Your task to perform on an android device: star an email in the gmail app Image 0: 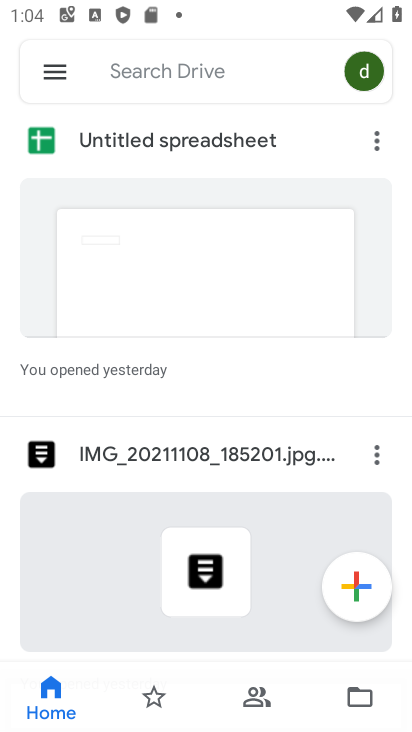
Step 0: press home button
Your task to perform on an android device: star an email in the gmail app Image 1: 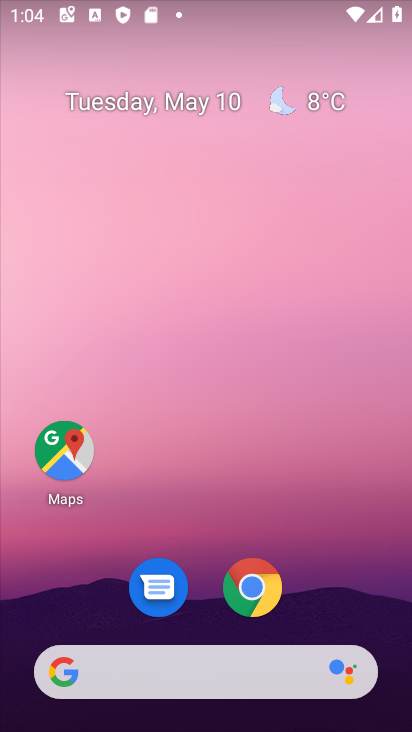
Step 1: drag from (389, 459) to (374, 293)
Your task to perform on an android device: star an email in the gmail app Image 2: 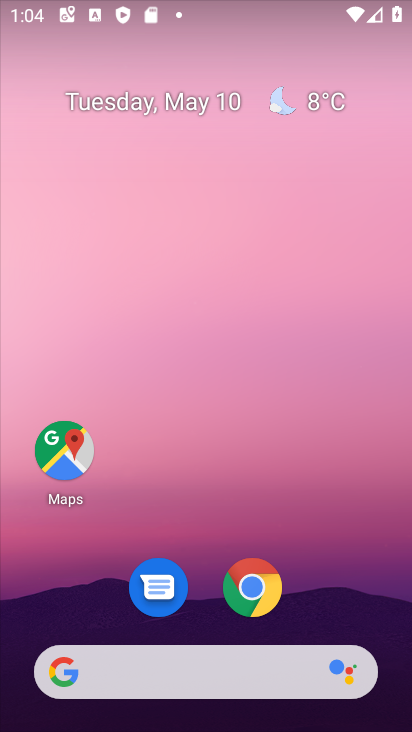
Step 2: drag from (391, 672) to (391, 242)
Your task to perform on an android device: star an email in the gmail app Image 3: 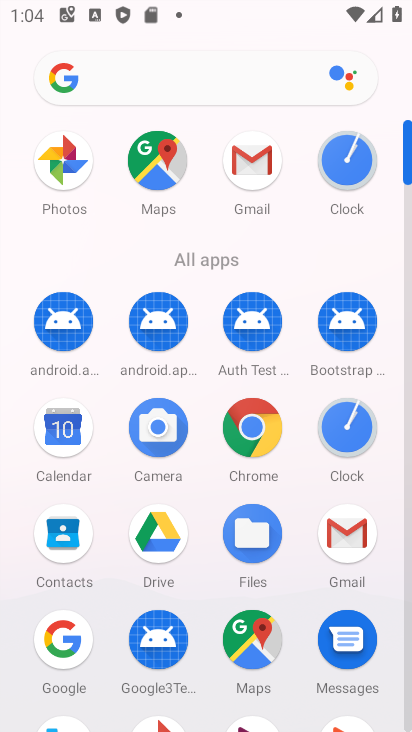
Step 3: click (353, 529)
Your task to perform on an android device: star an email in the gmail app Image 4: 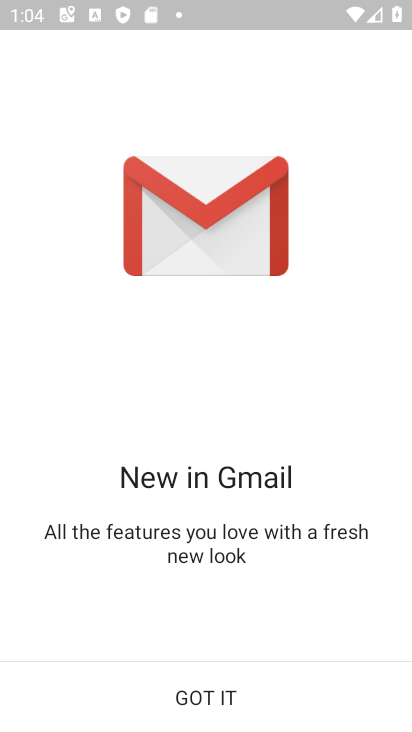
Step 4: click (198, 686)
Your task to perform on an android device: star an email in the gmail app Image 5: 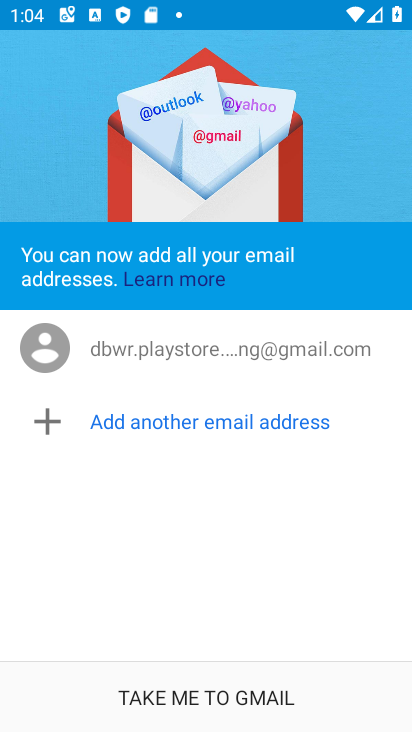
Step 5: click (202, 691)
Your task to perform on an android device: star an email in the gmail app Image 6: 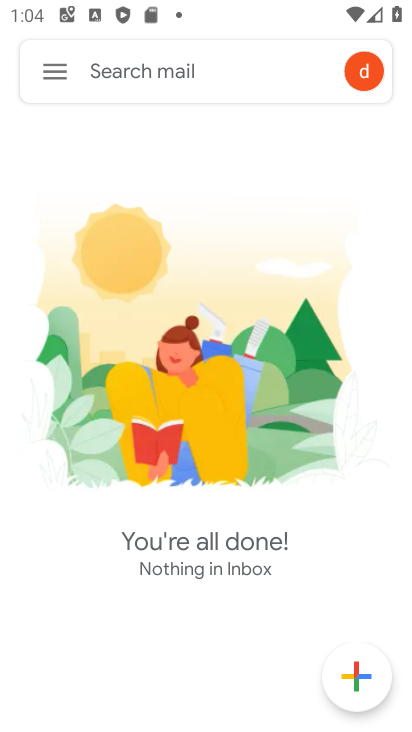
Step 6: click (51, 73)
Your task to perform on an android device: star an email in the gmail app Image 7: 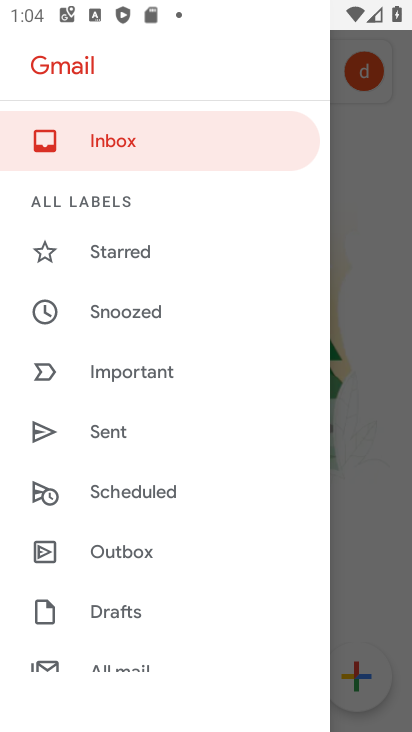
Step 7: click (115, 148)
Your task to perform on an android device: star an email in the gmail app Image 8: 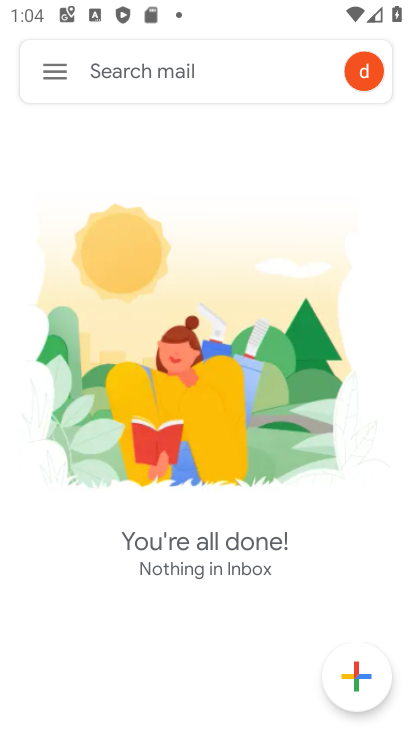
Step 8: task complete